Your task to perform on an android device: search for starred emails in the gmail app Image 0: 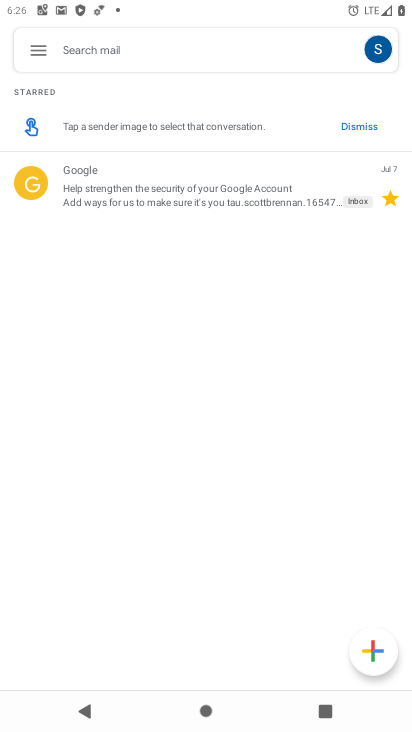
Step 0: drag from (189, 605) to (239, 582)
Your task to perform on an android device: search for starred emails in the gmail app Image 1: 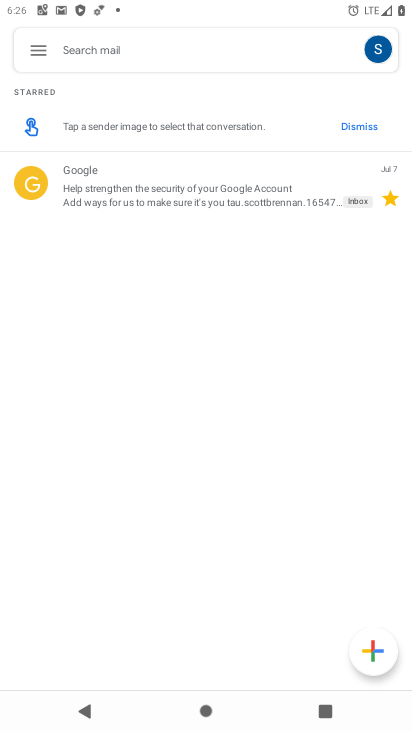
Step 1: press home button
Your task to perform on an android device: search for starred emails in the gmail app Image 2: 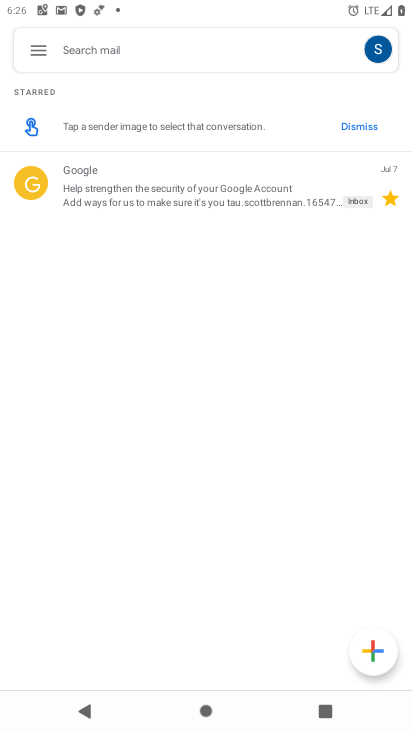
Step 2: drag from (239, 582) to (348, 570)
Your task to perform on an android device: search for starred emails in the gmail app Image 3: 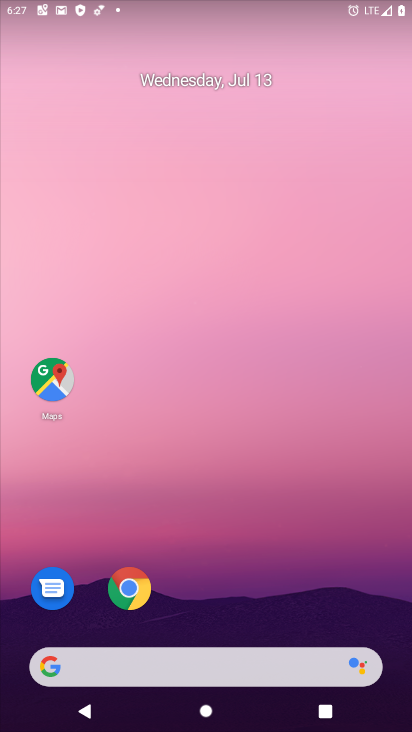
Step 3: drag from (196, 587) to (196, 195)
Your task to perform on an android device: search for starred emails in the gmail app Image 4: 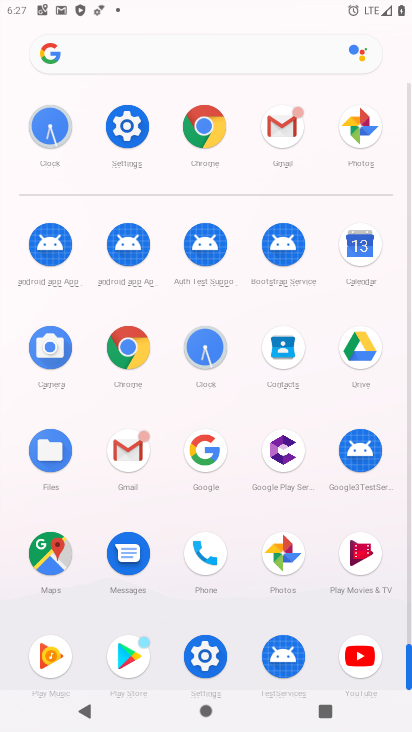
Step 4: click (131, 450)
Your task to perform on an android device: search for starred emails in the gmail app Image 5: 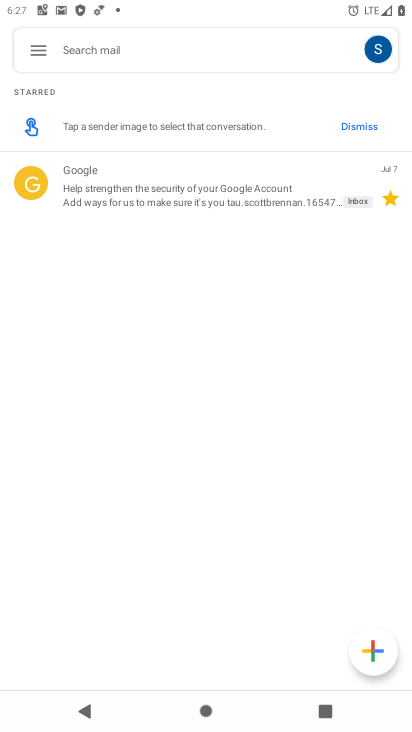
Step 5: click (45, 47)
Your task to perform on an android device: search for starred emails in the gmail app Image 6: 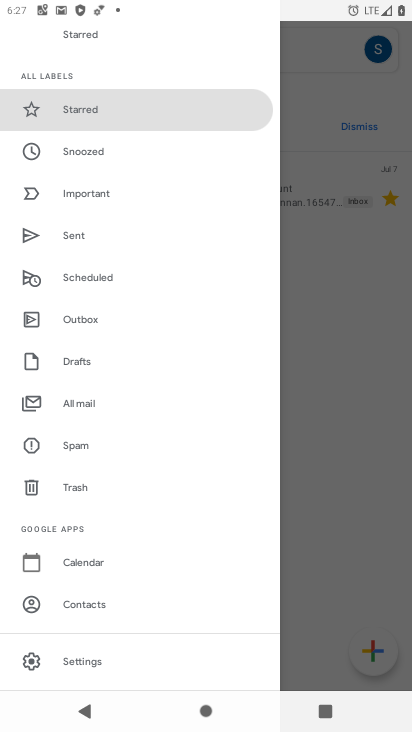
Step 6: click (95, 107)
Your task to perform on an android device: search for starred emails in the gmail app Image 7: 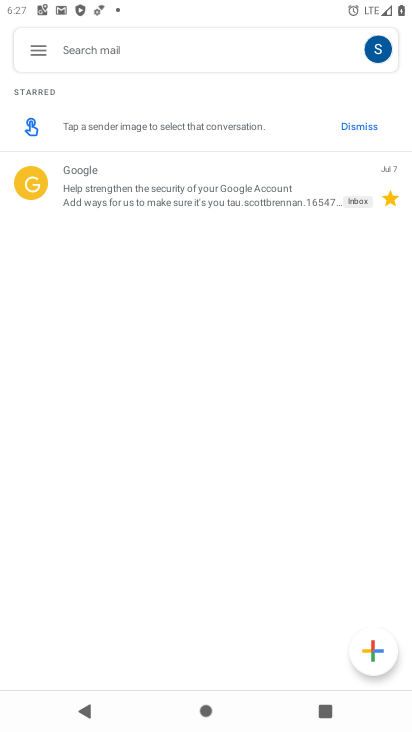
Step 7: task complete